Your task to perform on an android device: set the stopwatch Image 0: 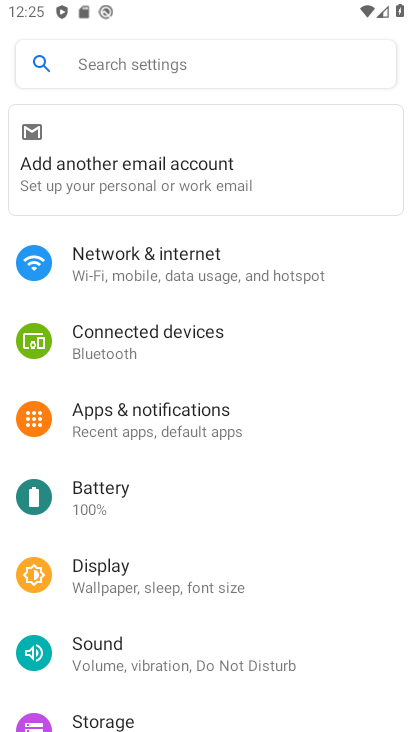
Step 0: press home button
Your task to perform on an android device: set the stopwatch Image 1: 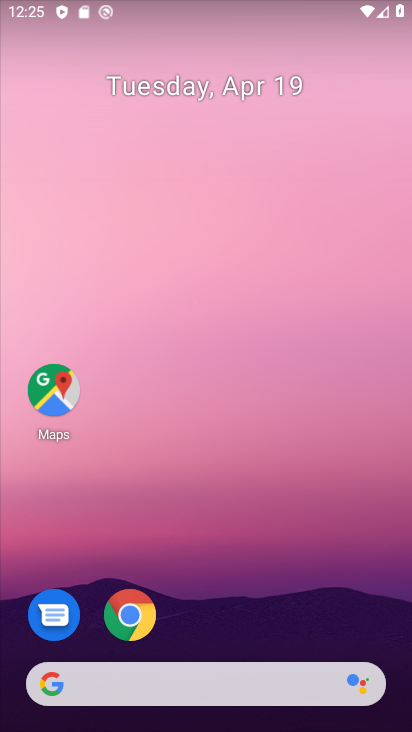
Step 1: drag from (379, 575) to (386, 62)
Your task to perform on an android device: set the stopwatch Image 2: 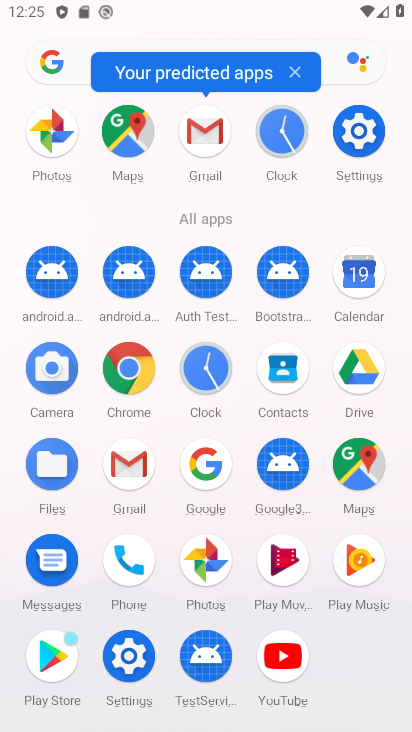
Step 2: click (274, 141)
Your task to perform on an android device: set the stopwatch Image 3: 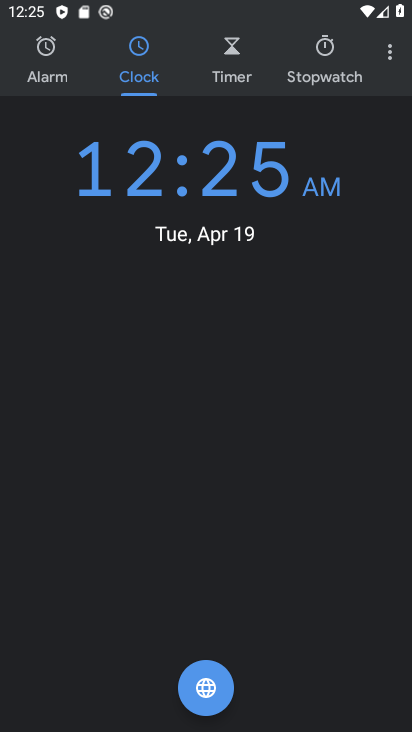
Step 3: click (321, 70)
Your task to perform on an android device: set the stopwatch Image 4: 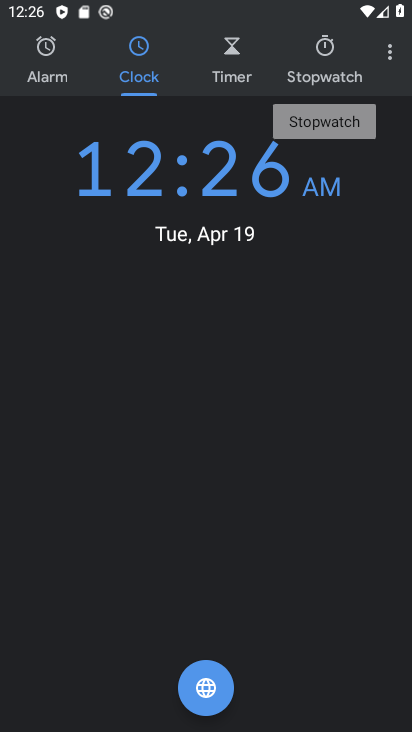
Step 4: click (321, 70)
Your task to perform on an android device: set the stopwatch Image 5: 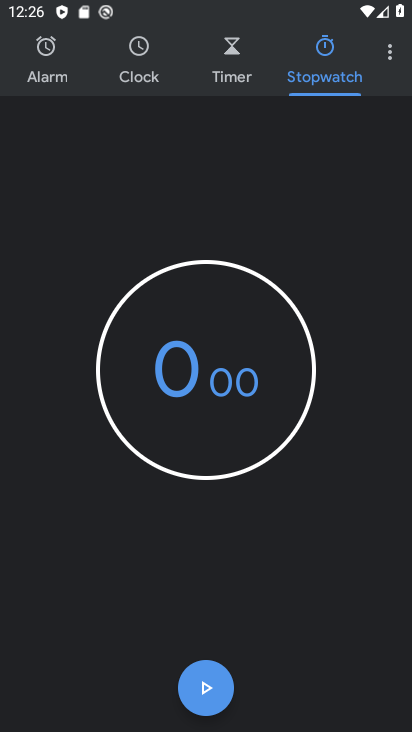
Step 5: click (209, 688)
Your task to perform on an android device: set the stopwatch Image 6: 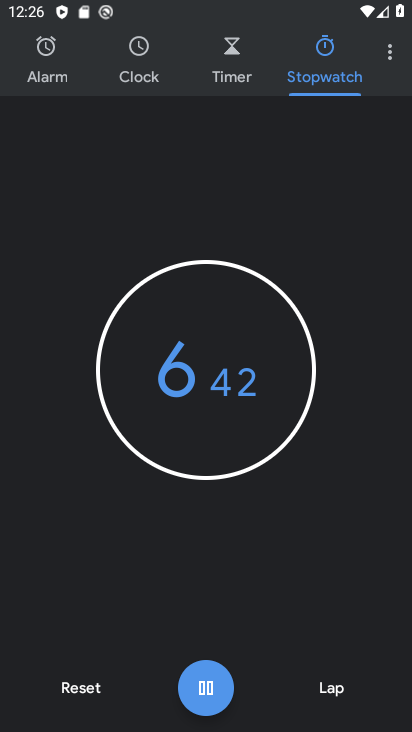
Step 6: task complete